Your task to perform on an android device: toggle data saver in the chrome app Image 0: 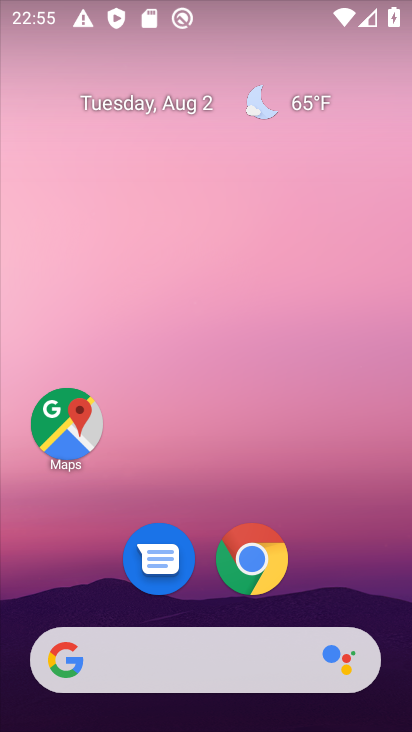
Step 0: drag from (254, 545) to (210, 240)
Your task to perform on an android device: toggle data saver in the chrome app Image 1: 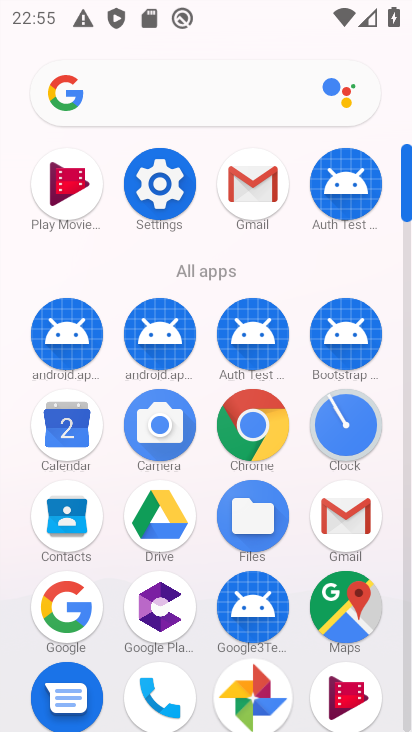
Step 1: click (270, 436)
Your task to perform on an android device: toggle data saver in the chrome app Image 2: 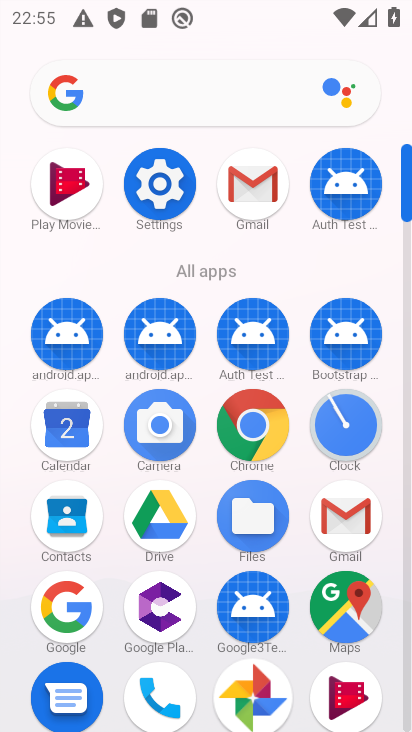
Step 2: click (269, 435)
Your task to perform on an android device: toggle data saver in the chrome app Image 3: 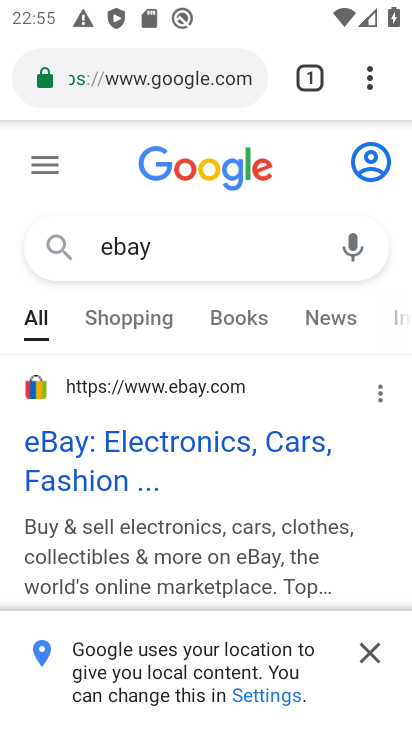
Step 3: drag from (362, 79) to (87, 643)
Your task to perform on an android device: toggle data saver in the chrome app Image 4: 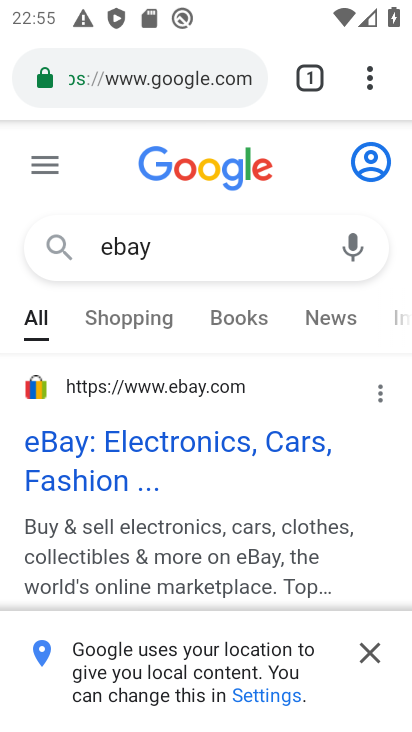
Step 4: click (87, 643)
Your task to perform on an android device: toggle data saver in the chrome app Image 5: 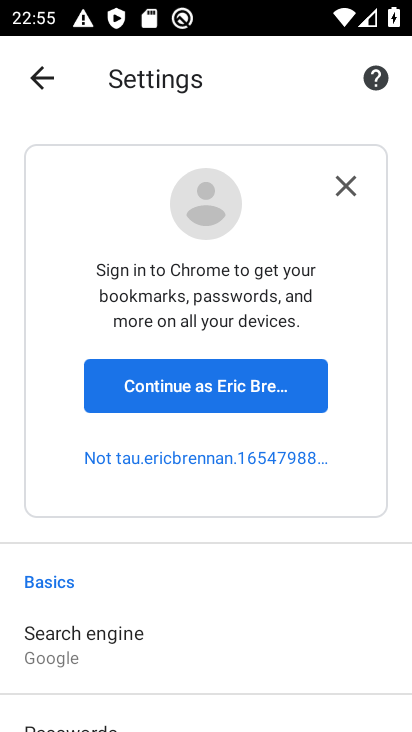
Step 5: click (344, 176)
Your task to perform on an android device: toggle data saver in the chrome app Image 6: 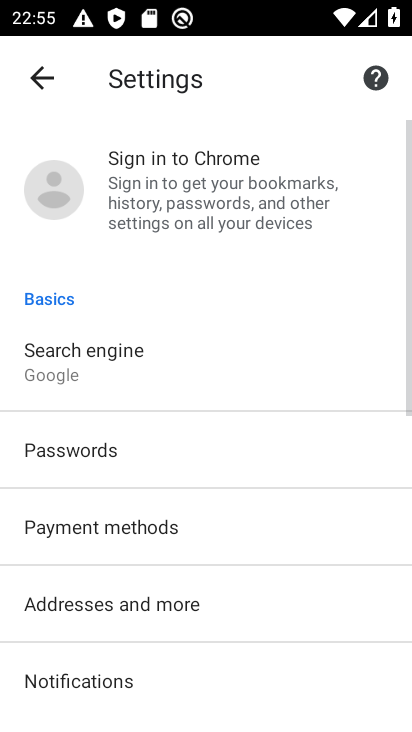
Step 6: drag from (103, 411) to (76, 186)
Your task to perform on an android device: toggle data saver in the chrome app Image 7: 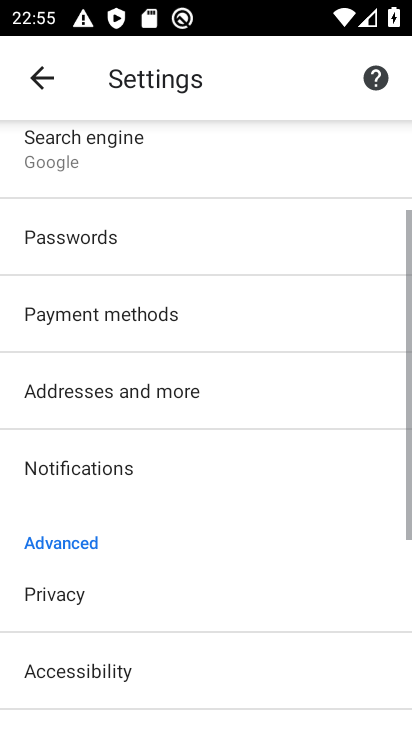
Step 7: drag from (80, 485) to (80, 204)
Your task to perform on an android device: toggle data saver in the chrome app Image 8: 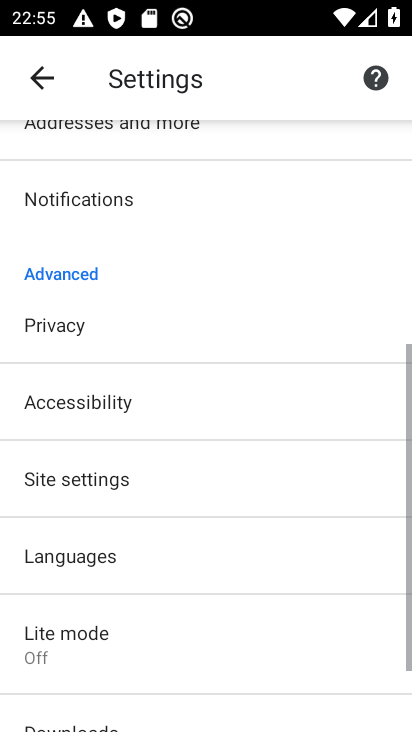
Step 8: drag from (166, 531) to (139, 283)
Your task to perform on an android device: toggle data saver in the chrome app Image 9: 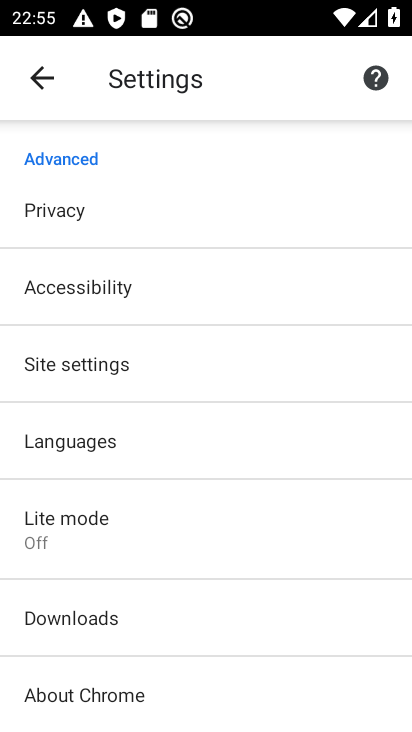
Step 9: click (58, 527)
Your task to perform on an android device: toggle data saver in the chrome app Image 10: 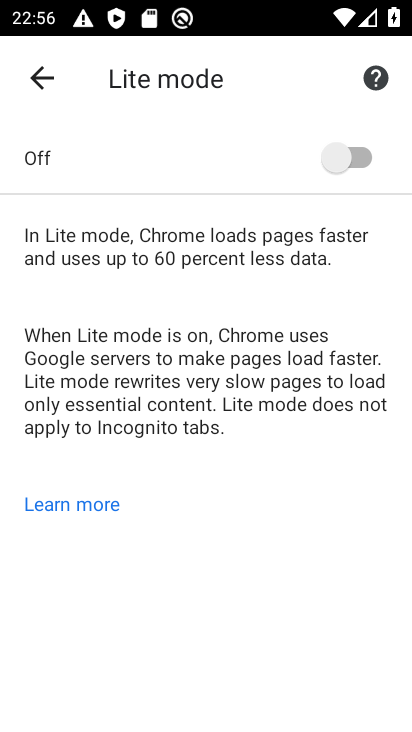
Step 10: click (345, 151)
Your task to perform on an android device: toggle data saver in the chrome app Image 11: 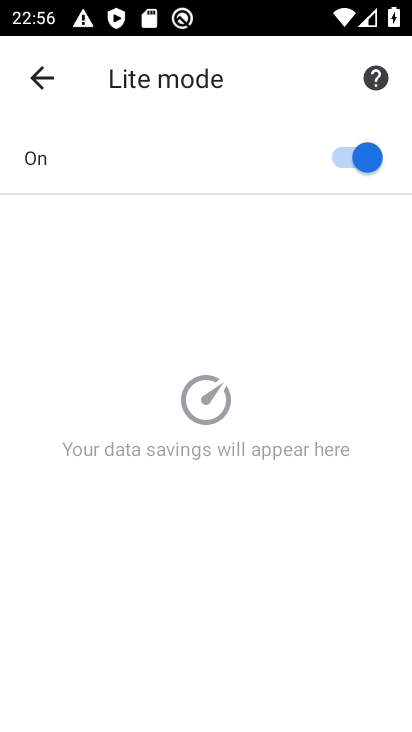
Step 11: task complete